Your task to perform on an android device: What's on my calendar today? Image 0: 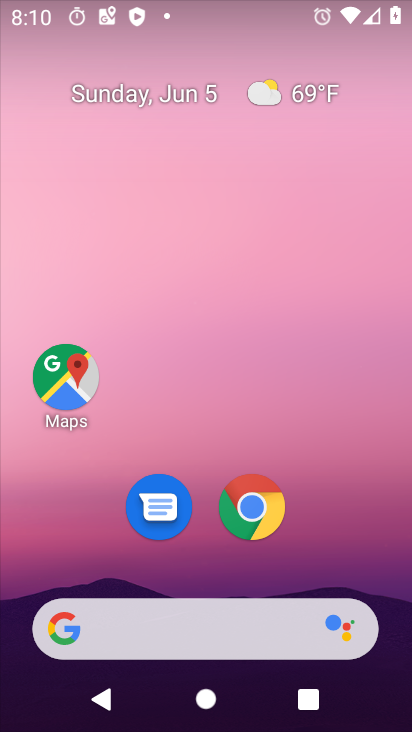
Step 0: drag from (349, 523) to (220, 41)
Your task to perform on an android device: What's on my calendar today? Image 1: 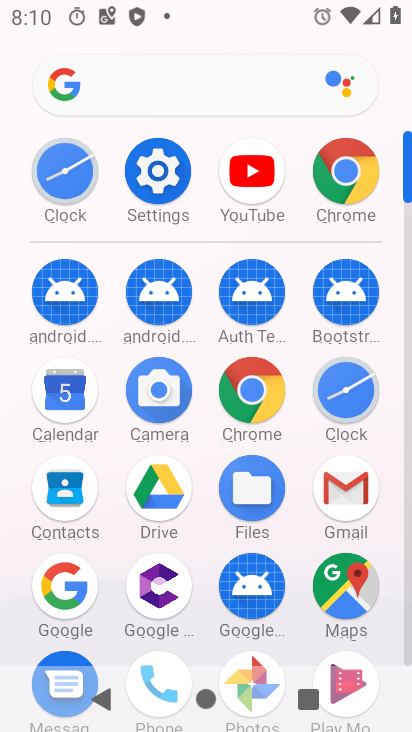
Step 1: drag from (21, 586) to (14, 241)
Your task to perform on an android device: What's on my calendar today? Image 2: 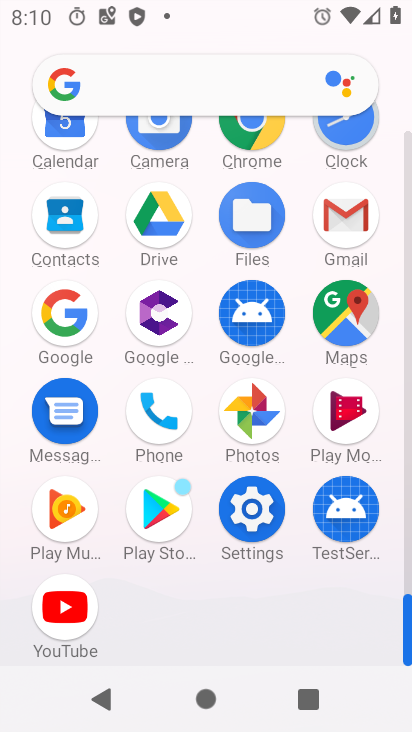
Step 2: click (56, 127)
Your task to perform on an android device: What's on my calendar today? Image 3: 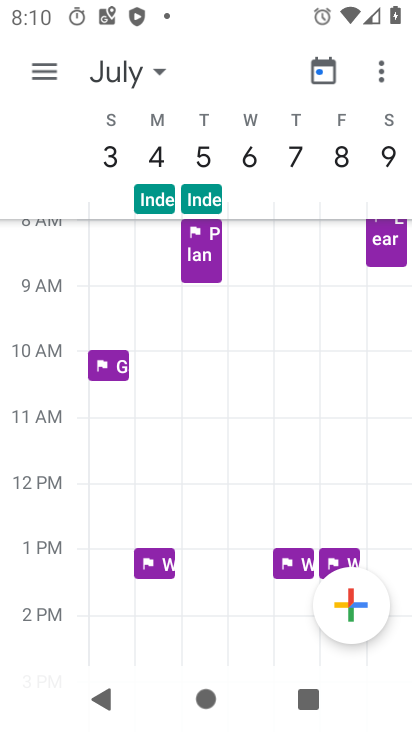
Step 3: click (315, 75)
Your task to perform on an android device: What's on my calendar today? Image 4: 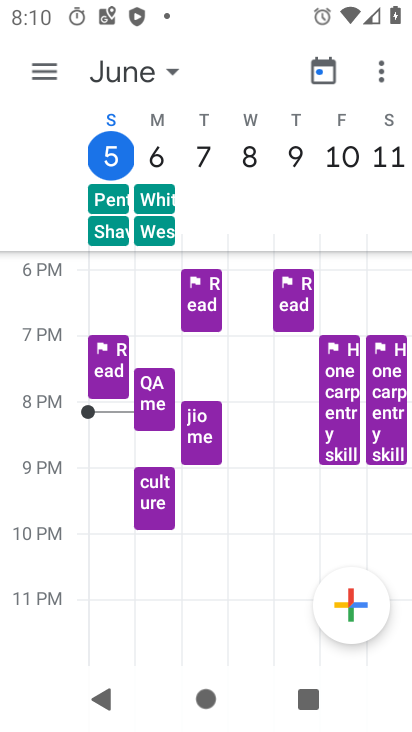
Step 4: click (109, 149)
Your task to perform on an android device: What's on my calendar today? Image 5: 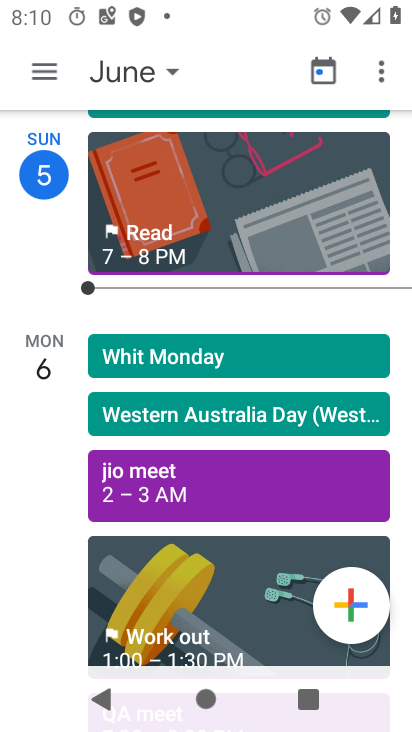
Step 5: task complete